Your task to perform on an android device: manage bookmarks in the chrome app Image 0: 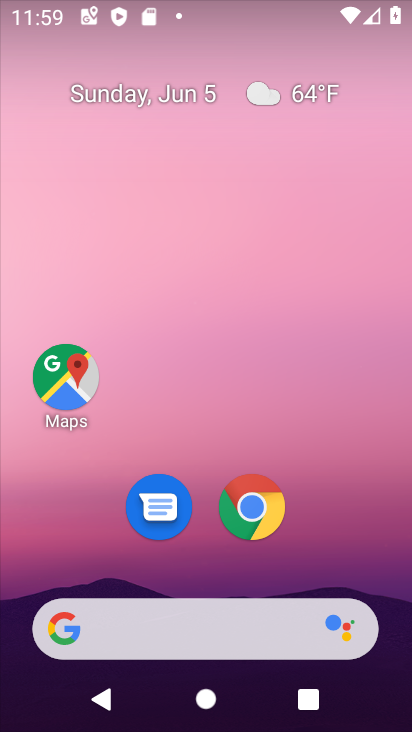
Step 0: click (243, 500)
Your task to perform on an android device: manage bookmarks in the chrome app Image 1: 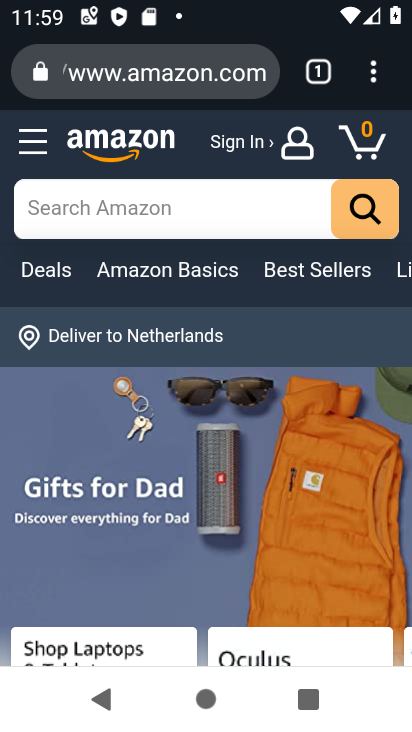
Step 1: drag from (382, 66) to (184, 557)
Your task to perform on an android device: manage bookmarks in the chrome app Image 2: 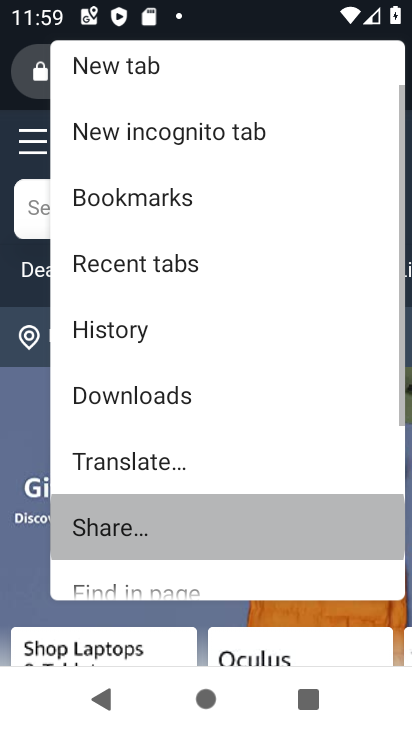
Step 2: drag from (185, 556) to (315, 203)
Your task to perform on an android device: manage bookmarks in the chrome app Image 3: 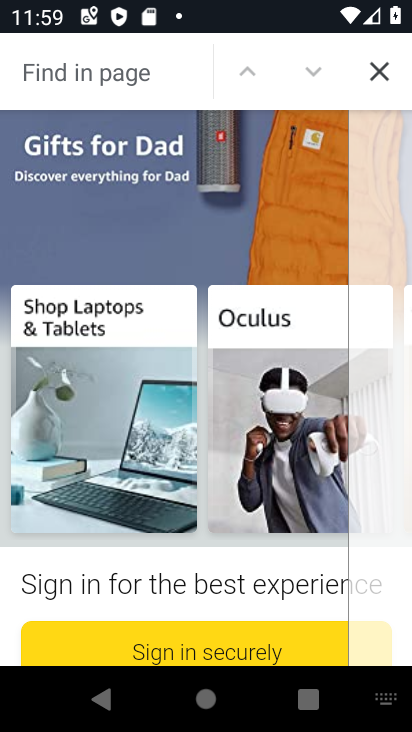
Step 3: click (372, 69)
Your task to perform on an android device: manage bookmarks in the chrome app Image 4: 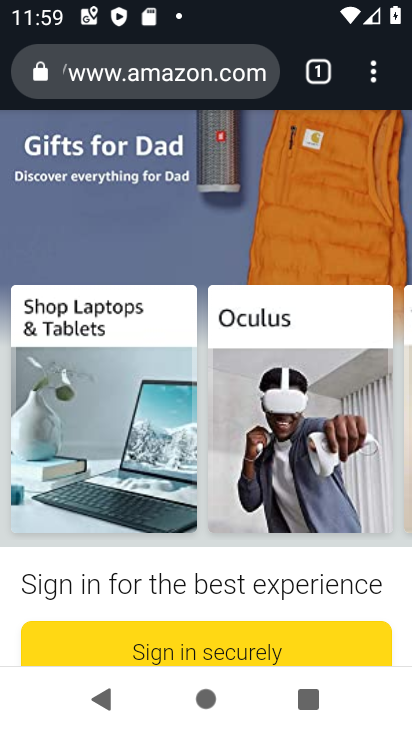
Step 4: drag from (372, 69) to (201, 272)
Your task to perform on an android device: manage bookmarks in the chrome app Image 5: 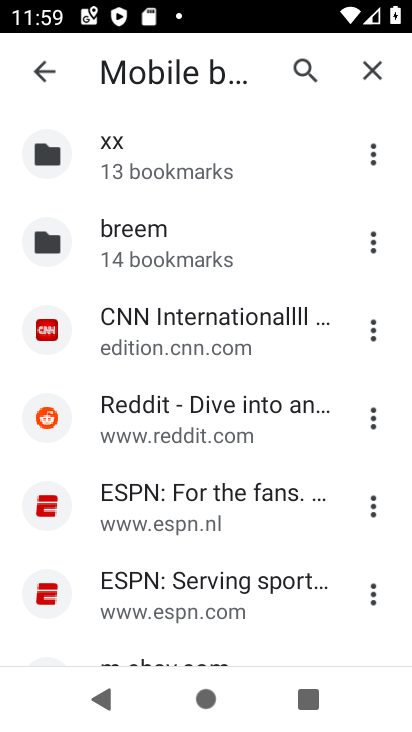
Step 5: click (376, 594)
Your task to perform on an android device: manage bookmarks in the chrome app Image 6: 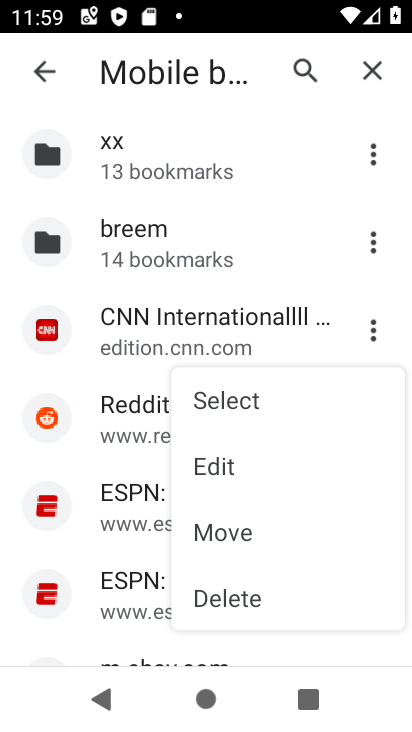
Step 6: click (237, 596)
Your task to perform on an android device: manage bookmarks in the chrome app Image 7: 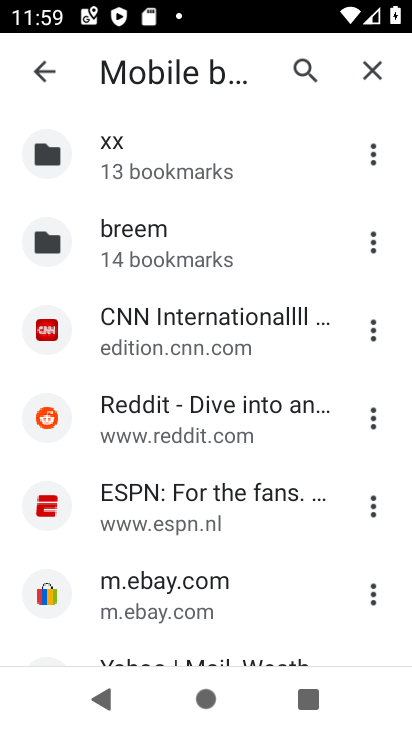
Step 7: task complete